Your task to perform on an android device: Turn on the flashlight Image 0: 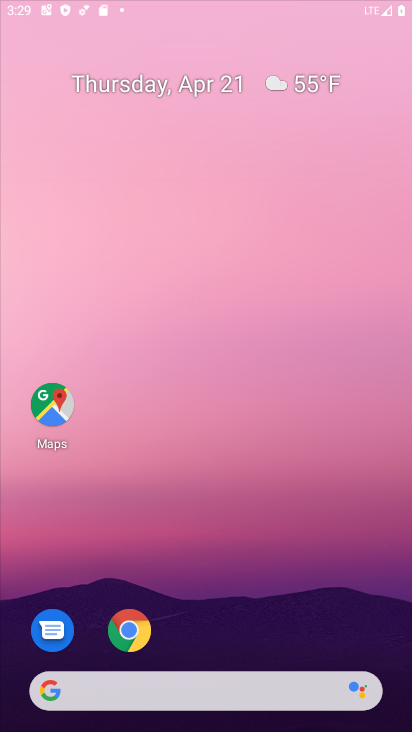
Step 0: drag from (241, 518) to (276, 83)
Your task to perform on an android device: Turn on the flashlight Image 1: 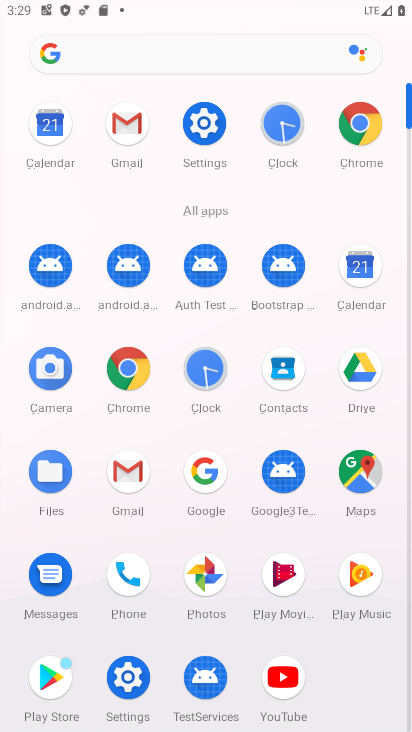
Step 1: click (289, 115)
Your task to perform on an android device: Turn on the flashlight Image 2: 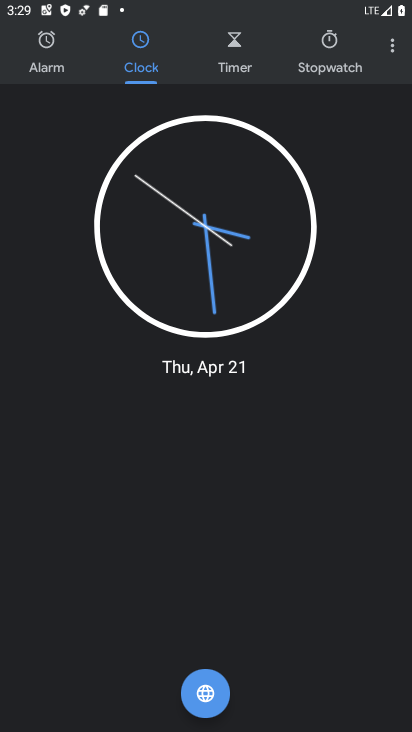
Step 2: press back button
Your task to perform on an android device: Turn on the flashlight Image 3: 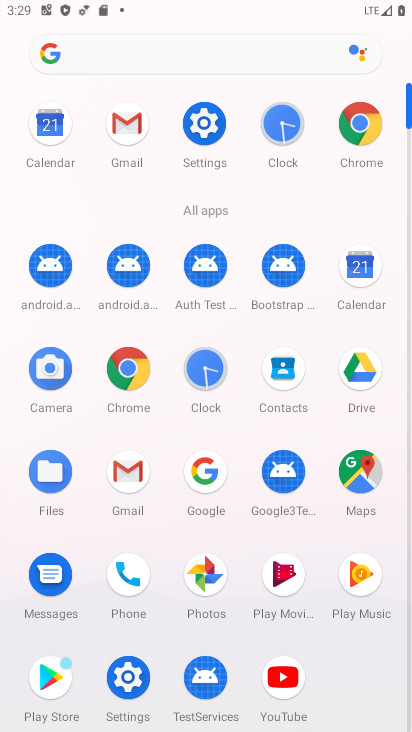
Step 3: click (213, 123)
Your task to perform on an android device: Turn on the flashlight Image 4: 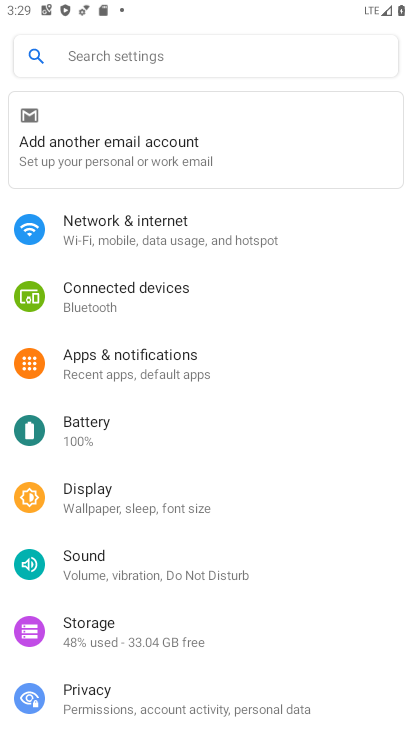
Step 4: click (90, 53)
Your task to perform on an android device: Turn on the flashlight Image 5: 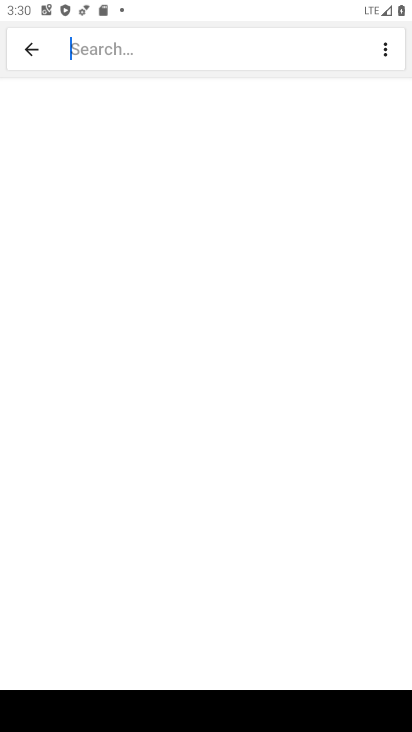
Step 5: type "flashlight"
Your task to perform on an android device: Turn on the flashlight Image 6: 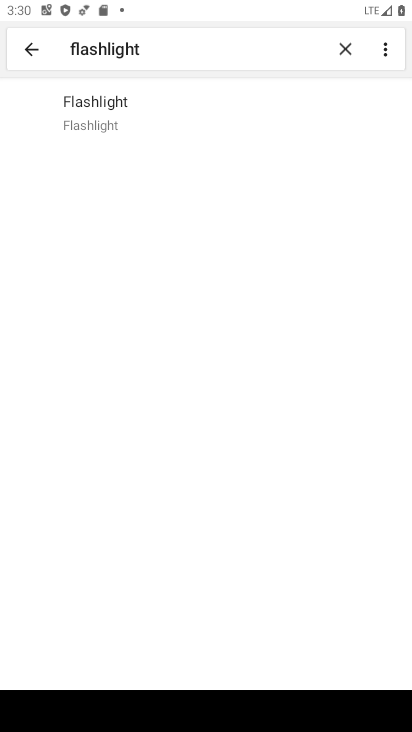
Step 6: click (116, 116)
Your task to perform on an android device: Turn on the flashlight Image 7: 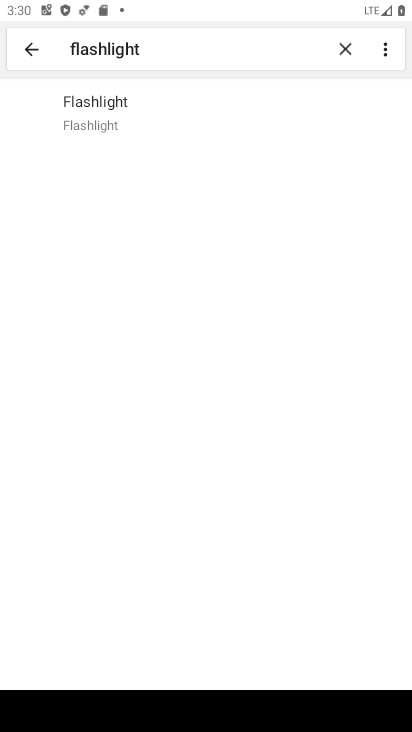
Step 7: task complete